Your task to perform on an android device: What's on my calendar today? Image 0: 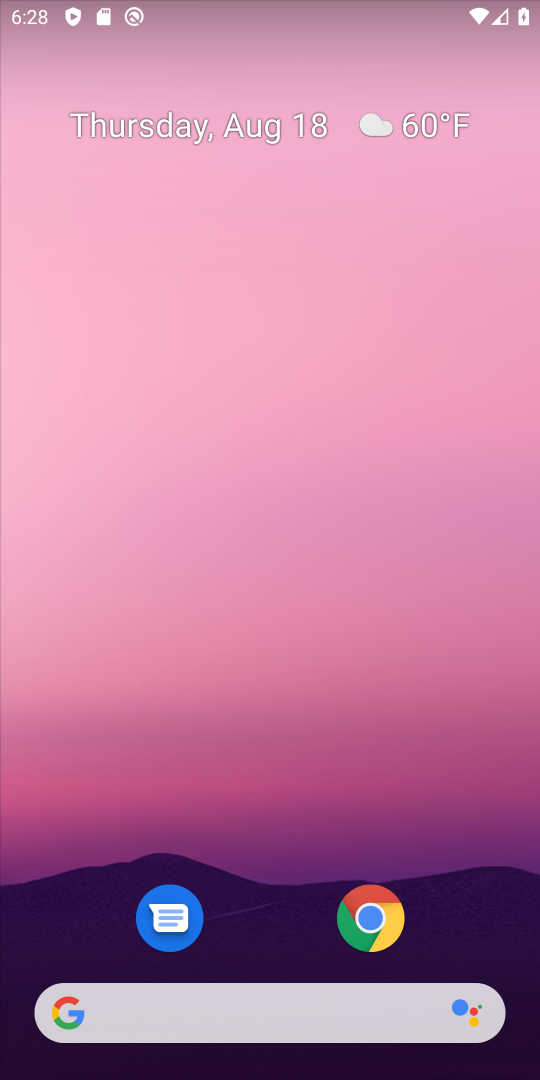
Step 0: press home button
Your task to perform on an android device: What's on my calendar today? Image 1: 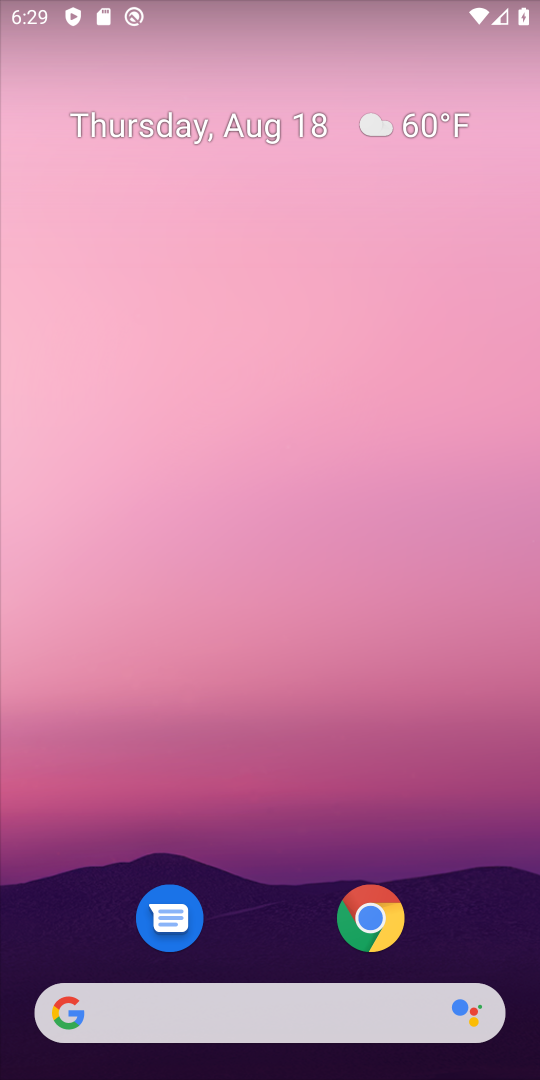
Step 1: drag from (285, 673) to (206, 29)
Your task to perform on an android device: What's on my calendar today? Image 2: 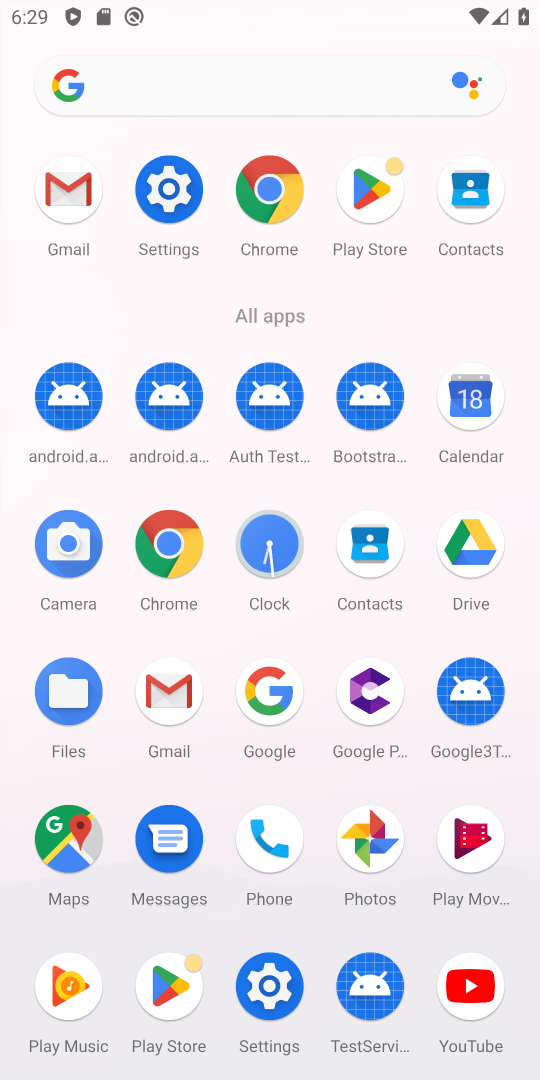
Step 2: click (472, 412)
Your task to perform on an android device: What's on my calendar today? Image 3: 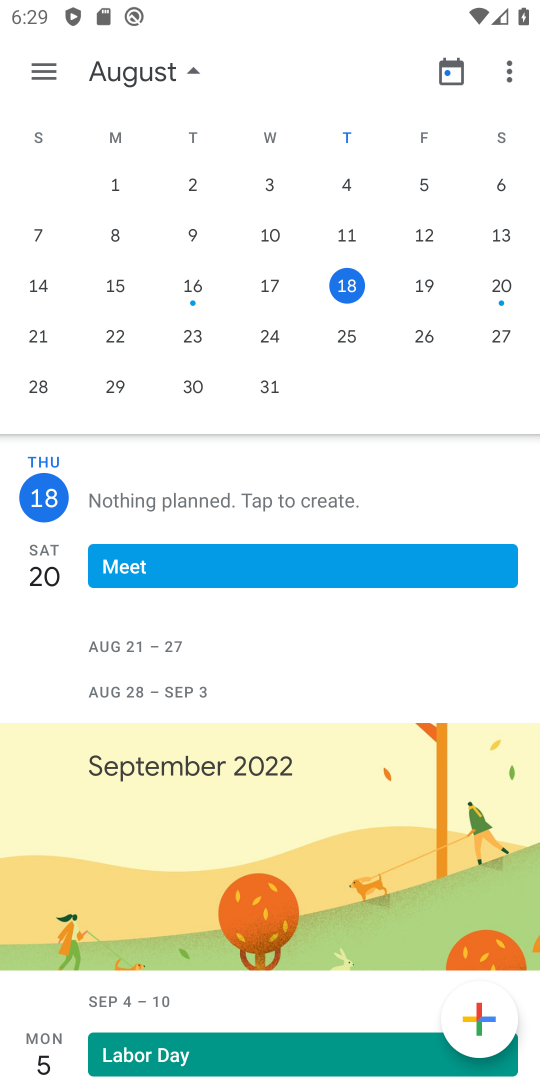
Step 3: click (348, 289)
Your task to perform on an android device: What's on my calendar today? Image 4: 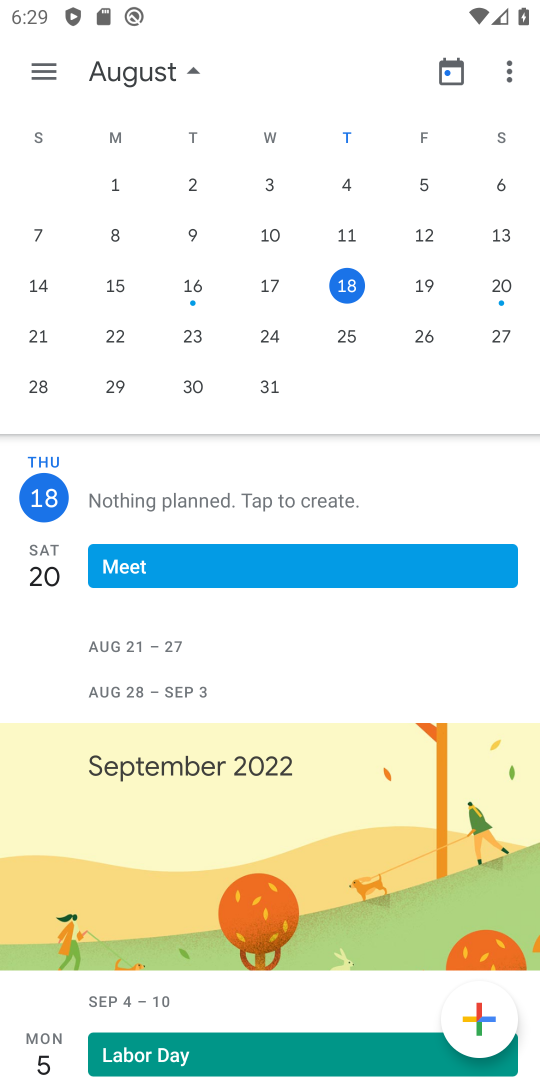
Step 4: task complete